Your task to perform on an android device: Turn on the flashlight Image 0: 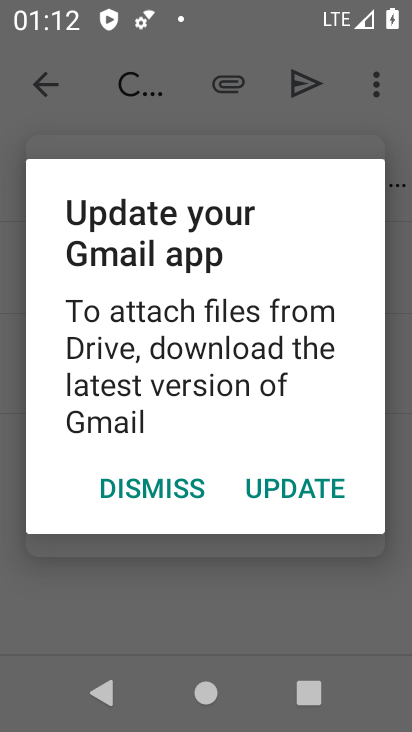
Step 0: press home button
Your task to perform on an android device: Turn on the flashlight Image 1: 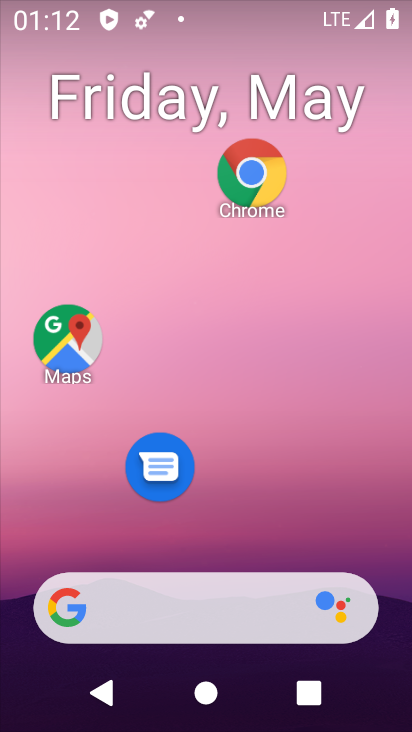
Step 1: drag from (256, 640) to (254, 103)
Your task to perform on an android device: Turn on the flashlight Image 2: 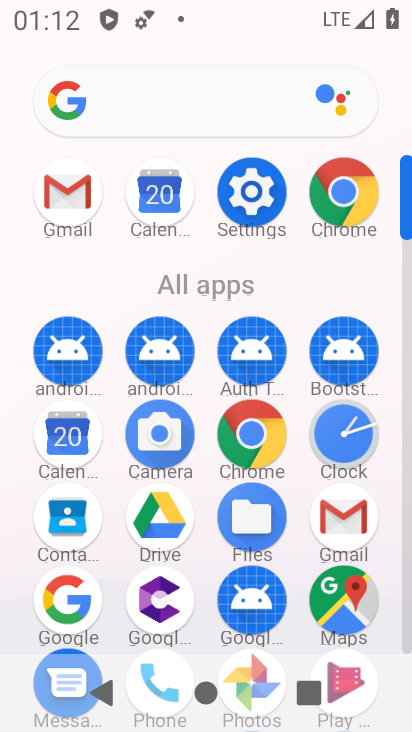
Step 2: click (249, 173)
Your task to perform on an android device: Turn on the flashlight Image 3: 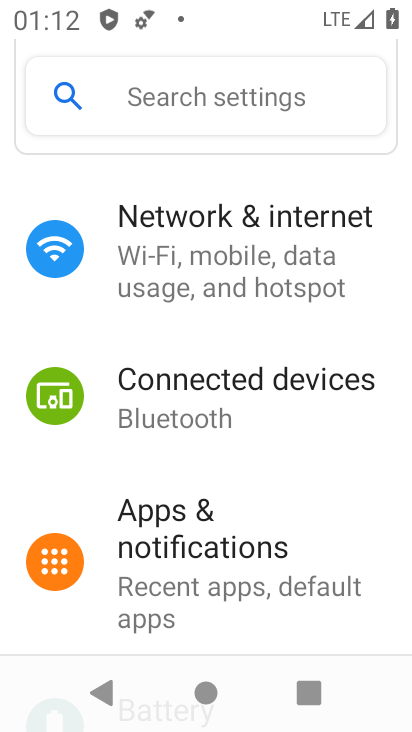
Step 3: click (187, 113)
Your task to perform on an android device: Turn on the flashlight Image 4: 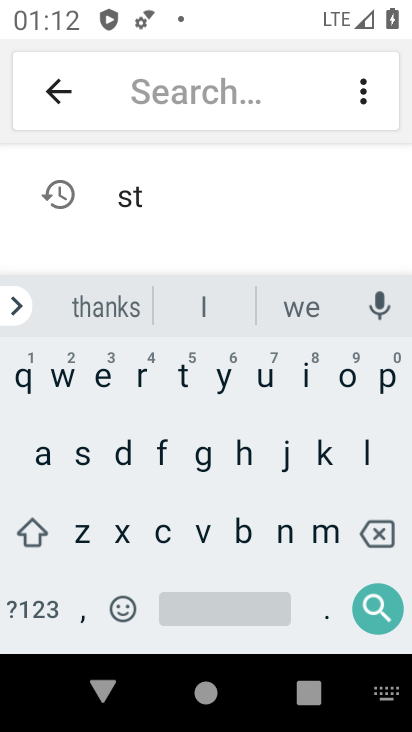
Step 4: click (165, 487)
Your task to perform on an android device: Turn on the flashlight Image 5: 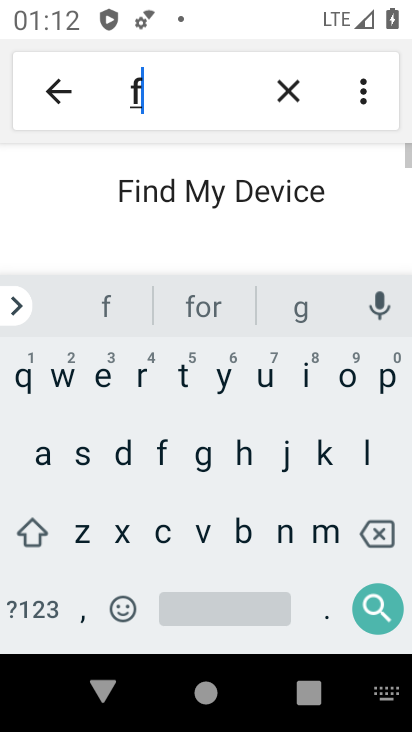
Step 5: click (376, 454)
Your task to perform on an android device: Turn on the flashlight Image 6: 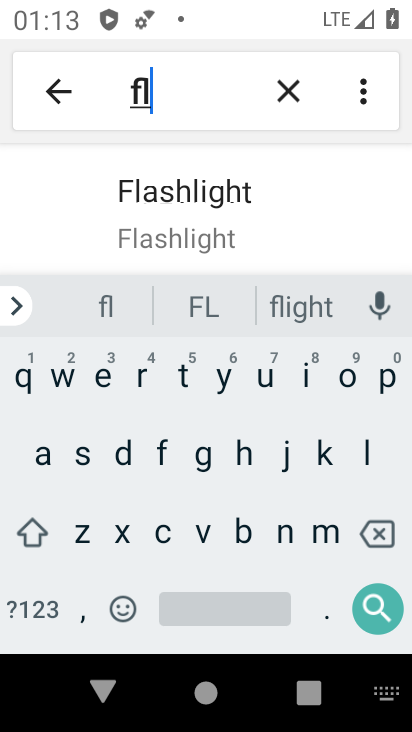
Step 6: click (187, 236)
Your task to perform on an android device: Turn on the flashlight Image 7: 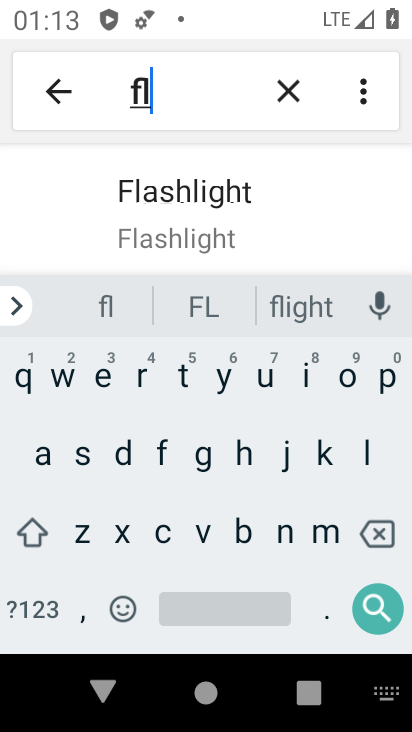
Step 7: click (187, 235)
Your task to perform on an android device: Turn on the flashlight Image 8: 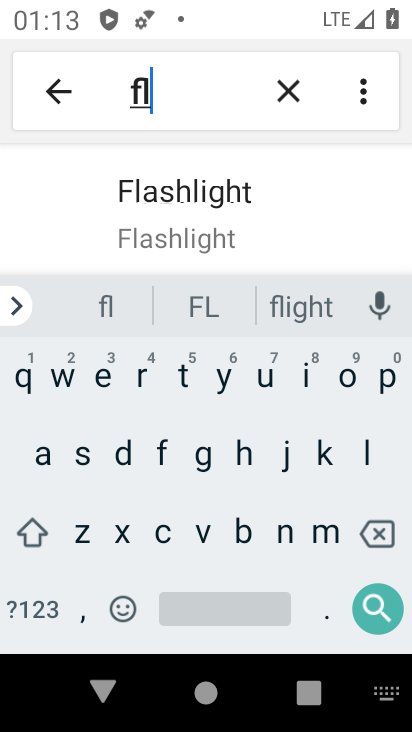
Step 8: task complete